Your task to perform on an android device: toggle airplane mode Image 0: 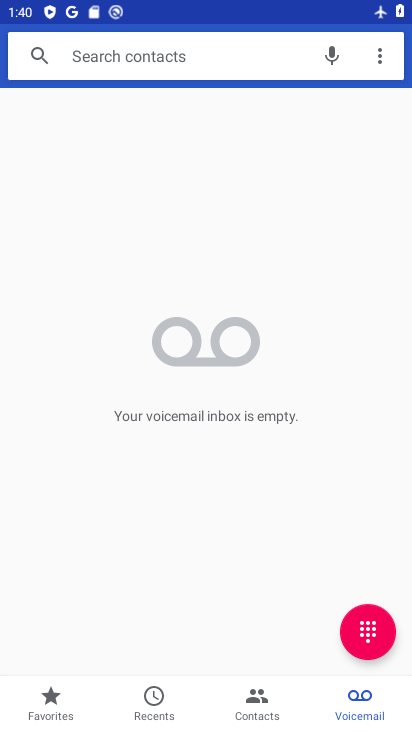
Step 0: press home button
Your task to perform on an android device: toggle airplane mode Image 1: 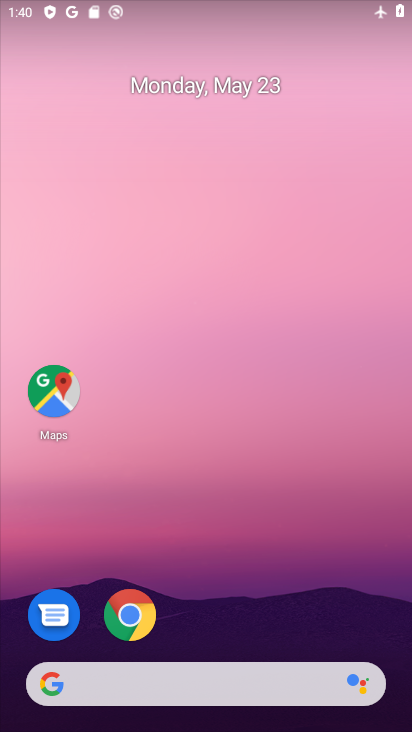
Step 1: drag from (205, 649) to (203, 103)
Your task to perform on an android device: toggle airplane mode Image 2: 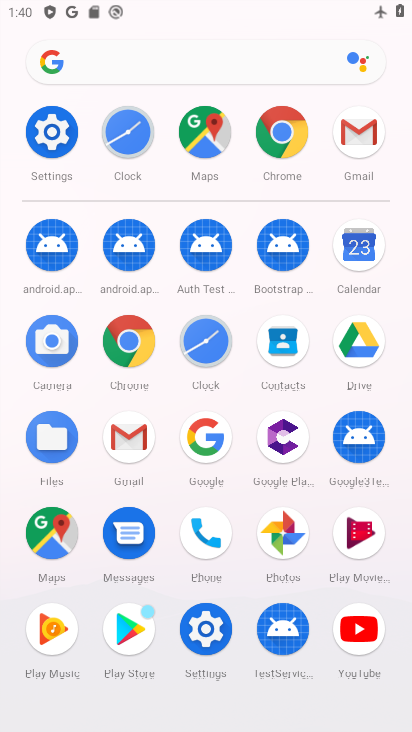
Step 2: click (42, 108)
Your task to perform on an android device: toggle airplane mode Image 3: 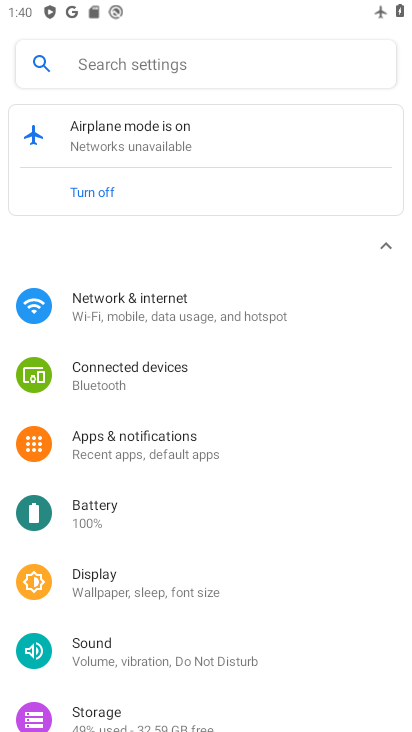
Step 3: click (116, 284)
Your task to perform on an android device: toggle airplane mode Image 4: 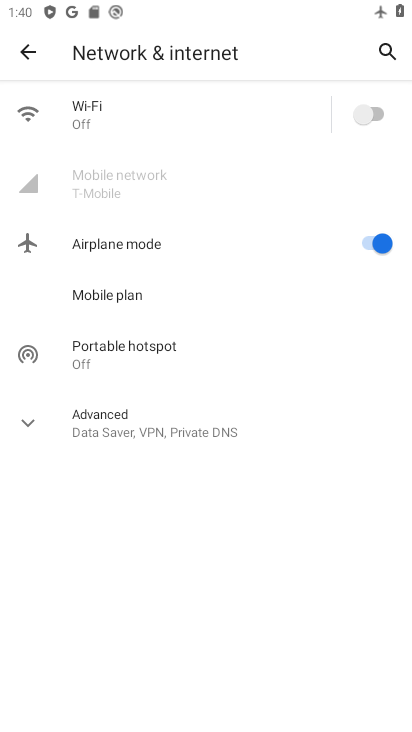
Step 4: click (161, 258)
Your task to perform on an android device: toggle airplane mode Image 5: 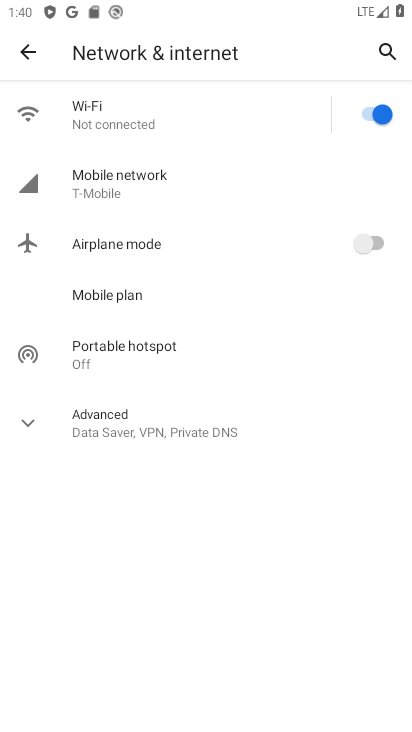
Step 5: task complete